Your task to perform on an android device: Show me productivity apps on the Play Store Image 0: 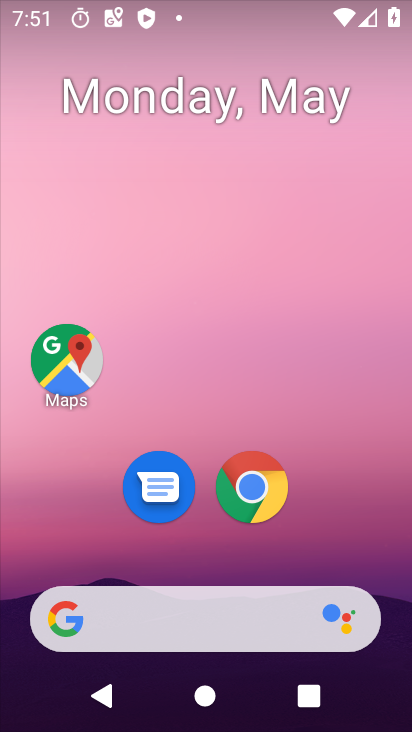
Step 0: drag from (231, 656) to (201, 3)
Your task to perform on an android device: Show me productivity apps on the Play Store Image 1: 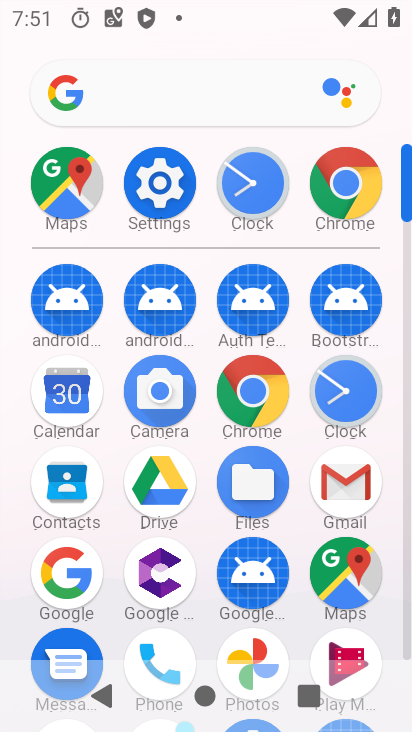
Step 1: drag from (116, 540) to (116, 372)
Your task to perform on an android device: Show me productivity apps on the Play Store Image 2: 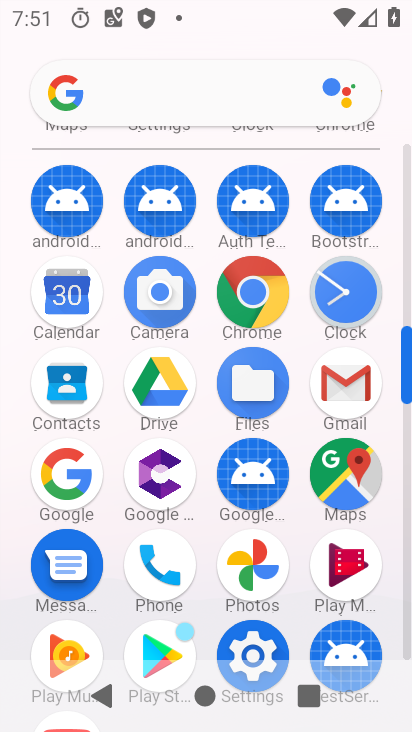
Step 2: click (166, 628)
Your task to perform on an android device: Show me productivity apps on the Play Store Image 3: 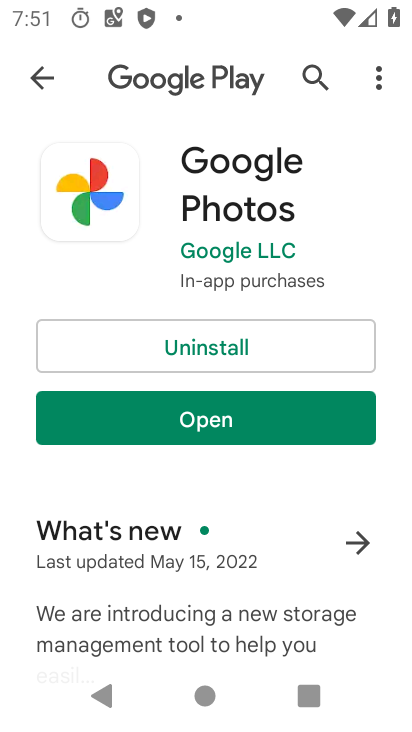
Step 3: click (185, 432)
Your task to perform on an android device: Show me productivity apps on the Play Store Image 4: 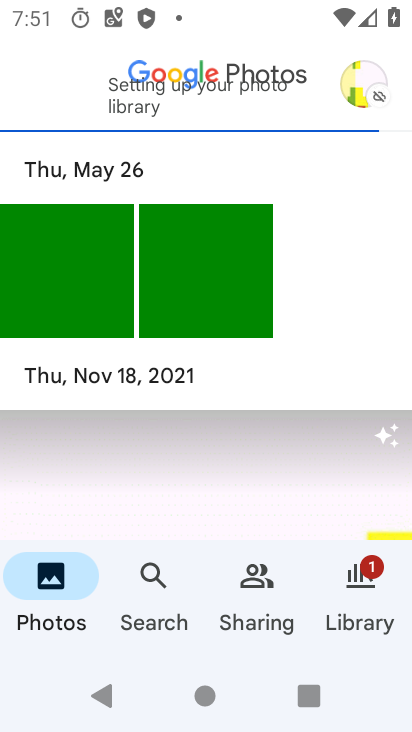
Step 4: click (149, 581)
Your task to perform on an android device: Show me productivity apps on the Play Store Image 5: 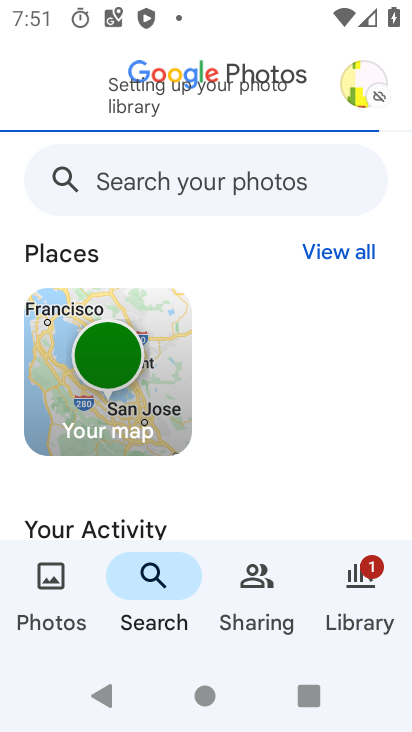
Step 5: click (131, 110)
Your task to perform on an android device: Show me productivity apps on the Play Store Image 6: 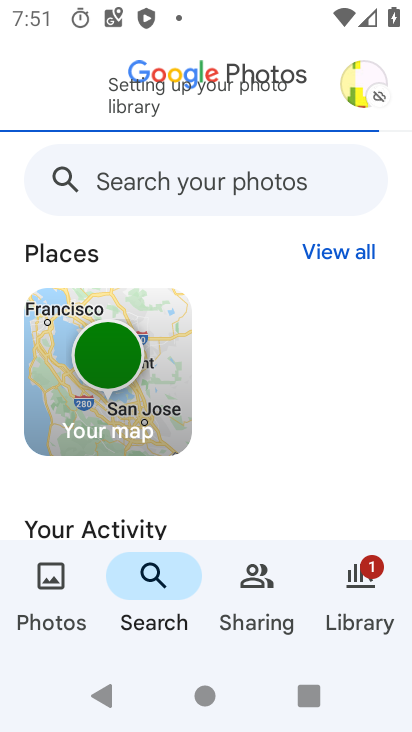
Step 6: click (156, 580)
Your task to perform on an android device: Show me productivity apps on the Play Store Image 7: 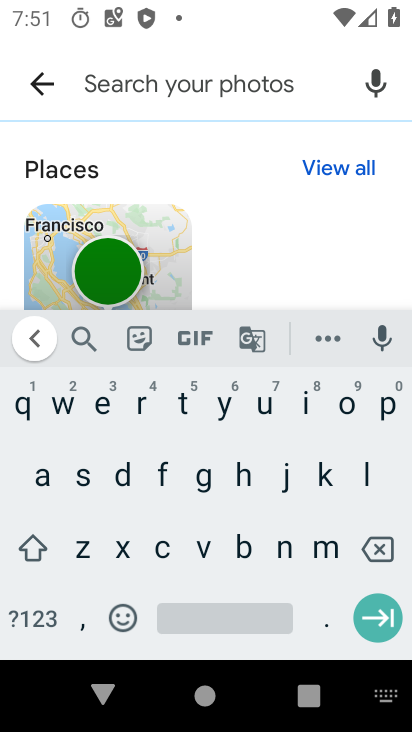
Step 7: click (387, 409)
Your task to perform on an android device: Show me productivity apps on the Play Store Image 8: 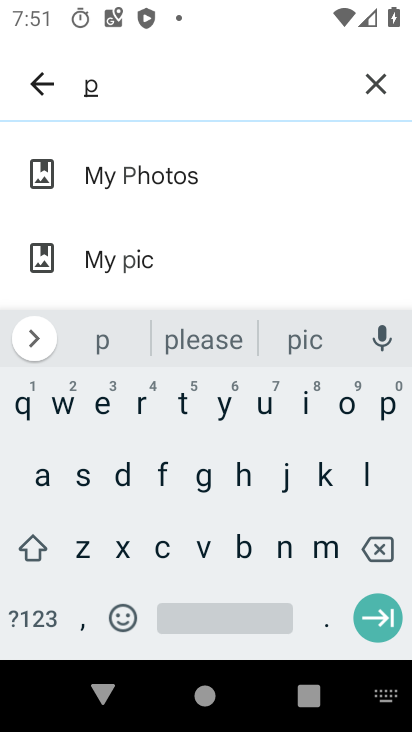
Step 8: click (147, 401)
Your task to perform on an android device: Show me productivity apps on the Play Store Image 9: 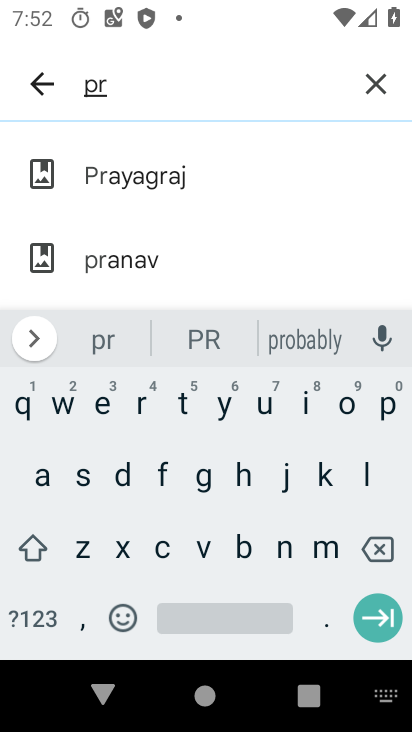
Step 9: click (344, 407)
Your task to perform on an android device: Show me productivity apps on the Play Store Image 10: 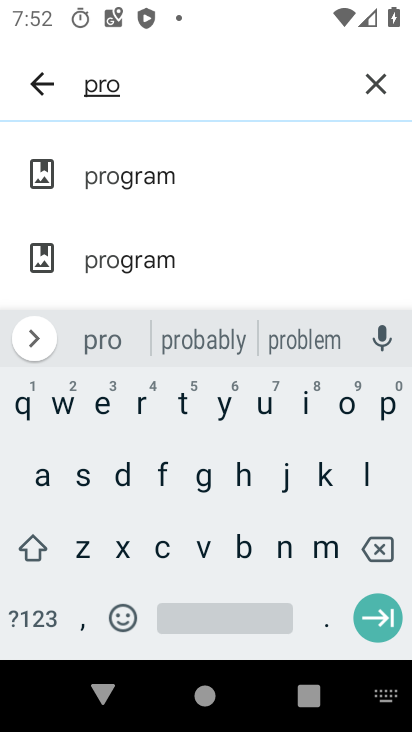
Step 10: click (125, 470)
Your task to perform on an android device: Show me productivity apps on the Play Store Image 11: 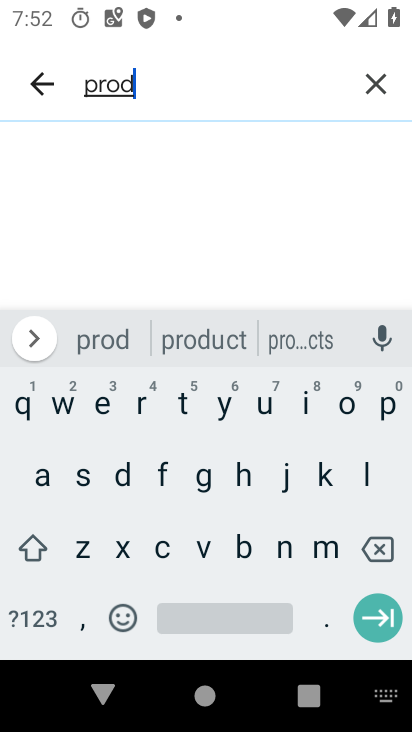
Step 11: click (263, 401)
Your task to perform on an android device: Show me productivity apps on the Play Store Image 12: 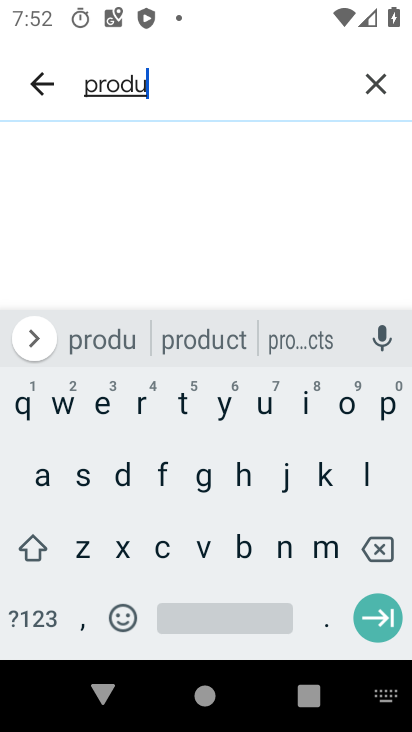
Step 12: click (156, 547)
Your task to perform on an android device: Show me productivity apps on the Play Store Image 13: 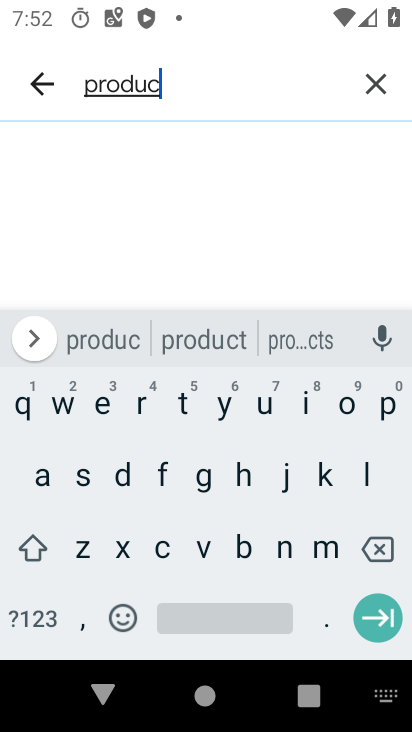
Step 13: click (189, 407)
Your task to perform on an android device: Show me productivity apps on the Play Store Image 14: 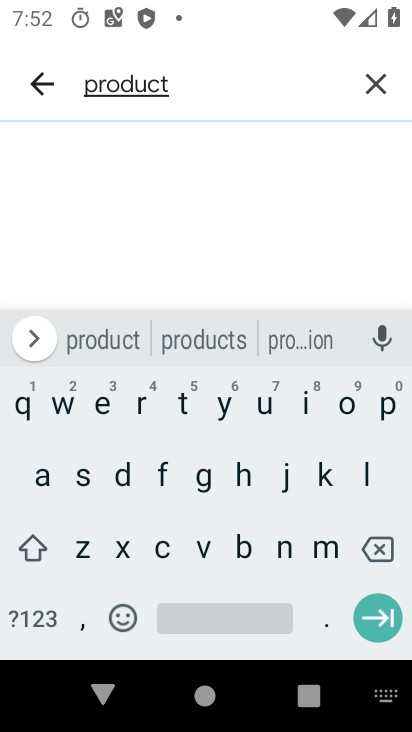
Step 14: click (300, 402)
Your task to perform on an android device: Show me productivity apps on the Play Store Image 15: 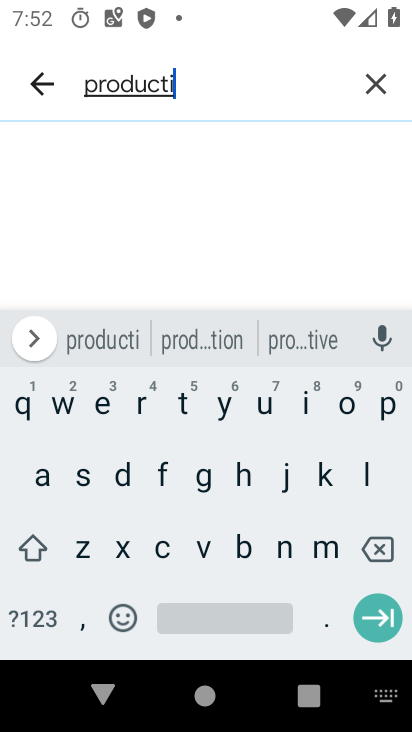
Step 15: click (200, 543)
Your task to perform on an android device: Show me productivity apps on the Play Store Image 16: 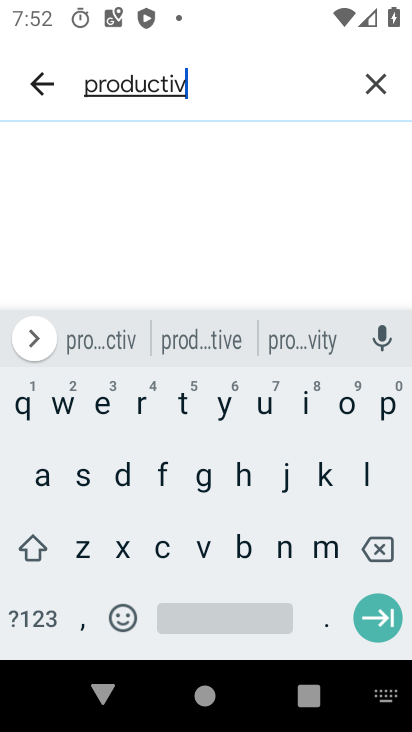
Step 16: click (294, 341)
Your task to perform on an android device: Show me productivity apps on the Play Store Image 17: 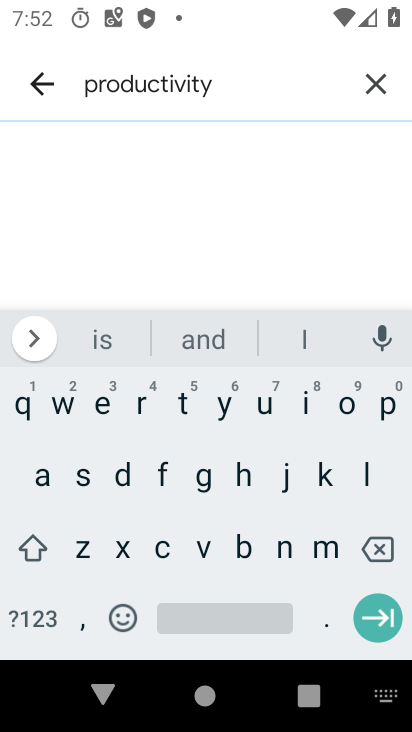
Step 17: click (36, 477)
Your task to perform on an android device: Show me productivity apps on the Play Store Image 18: 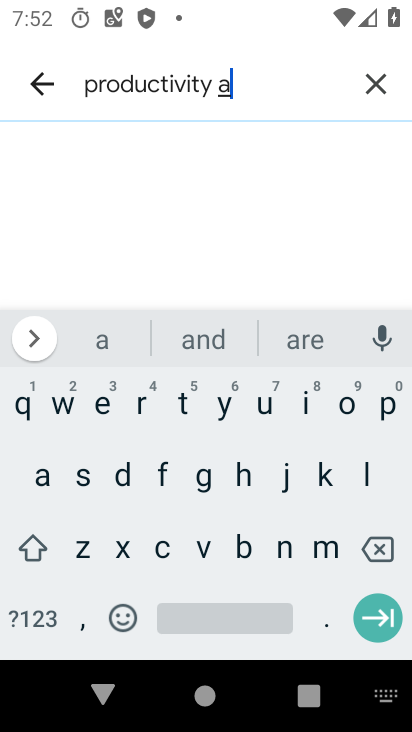
Step 18: click (386, 409)
Your task to perform on an android device: Show me productivity apps on the Play Store Image 19: 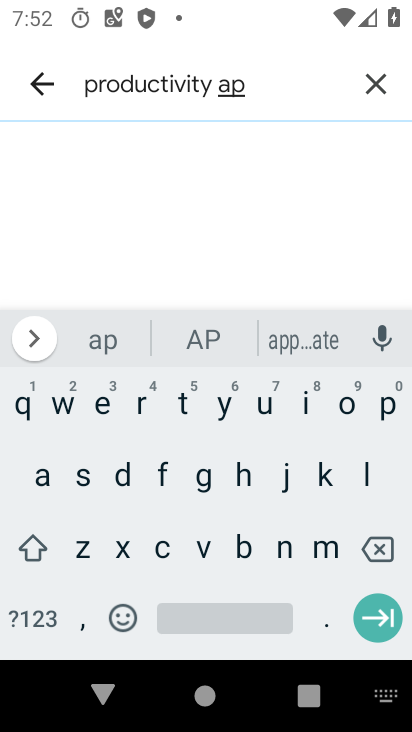
Step 19: click (388, 409)
Your task to perform on an android device: Show me productivity apps on the Play Store Image 20: 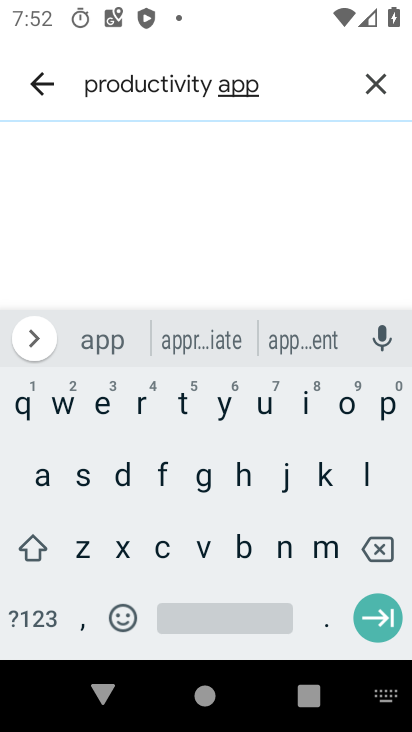
Step 20: click (79, 477)
Your task to perform on an android device: Show me productivity apps on the Play Store Image 21: 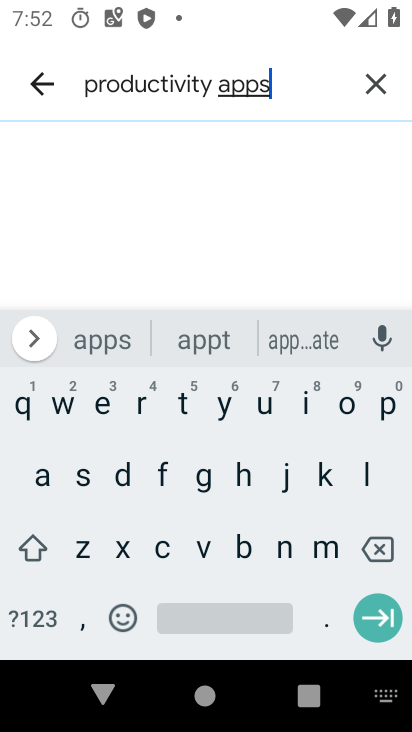
Step 21: click (372, 613)
Your task to perform on an android device: Show me productivity apps on the Play Store Image 22: 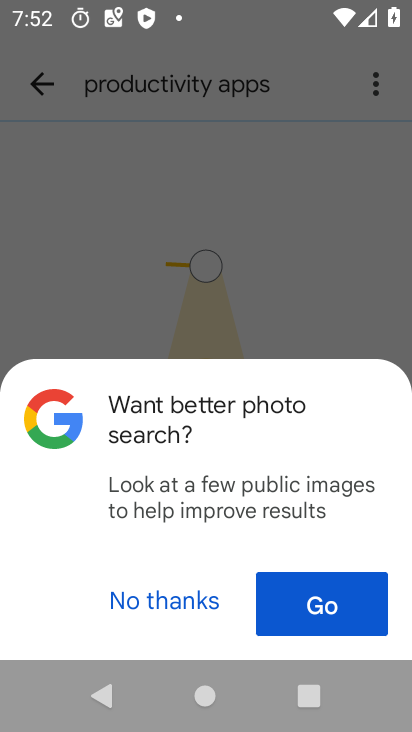
Step 22: click (183, 607)
Your task to perform on an android device: Show me productivity apps on the Play Store Image 23: 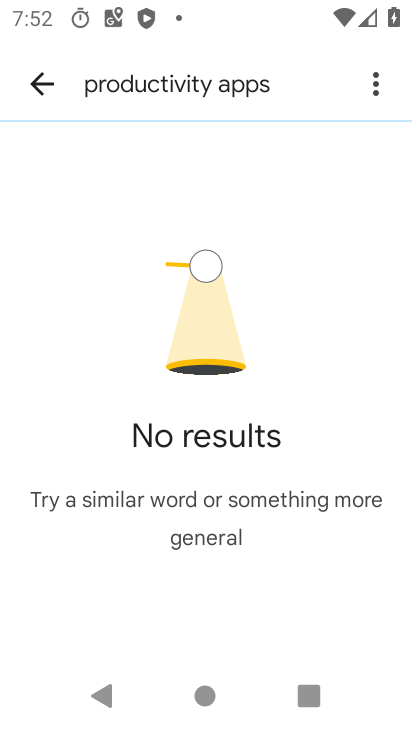
Step 23: task complete